Your task to perform on an android device: set an alarm Image 0: 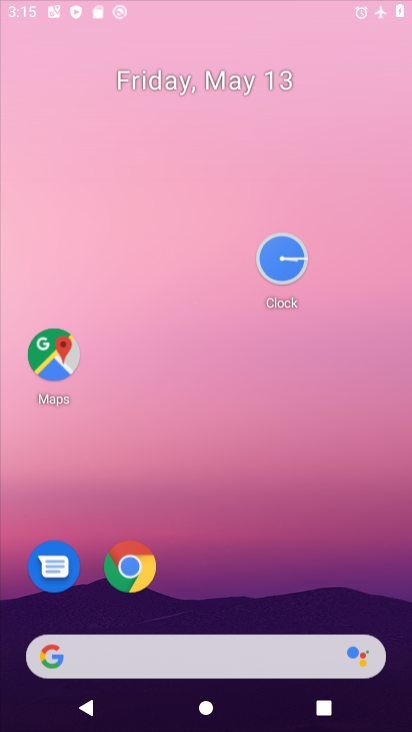
Step 0: click (280, 236)
Your task to perform on an android device: set an alarm Image 1: 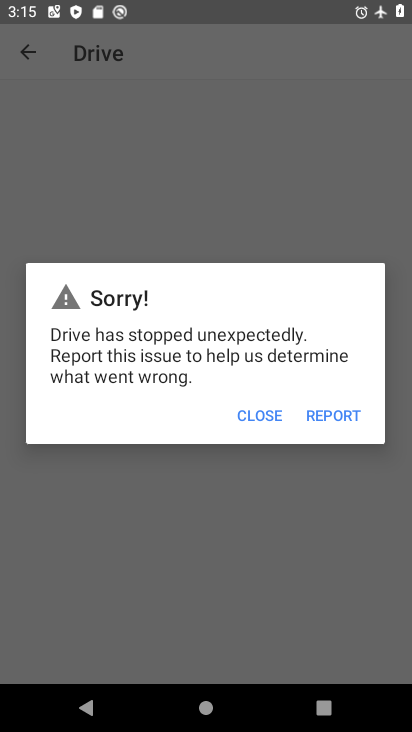
Step 1: press home button
Your task to perform on an android device: set an alarm Image 2: 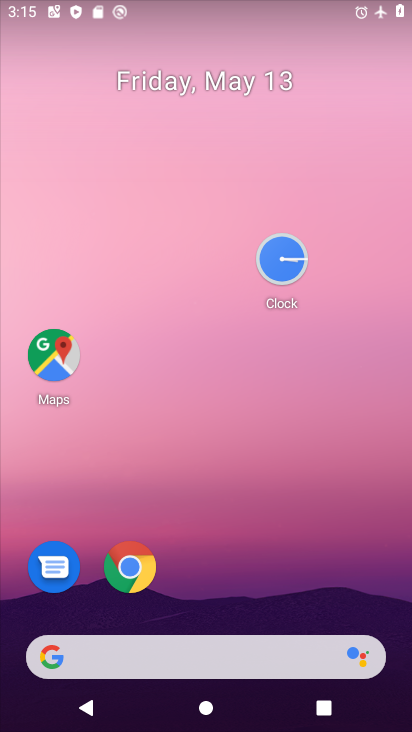
Step 2: drag from (279, 564) to (333, 158)
Your task to perform on an android device: set an alarm Image 3: 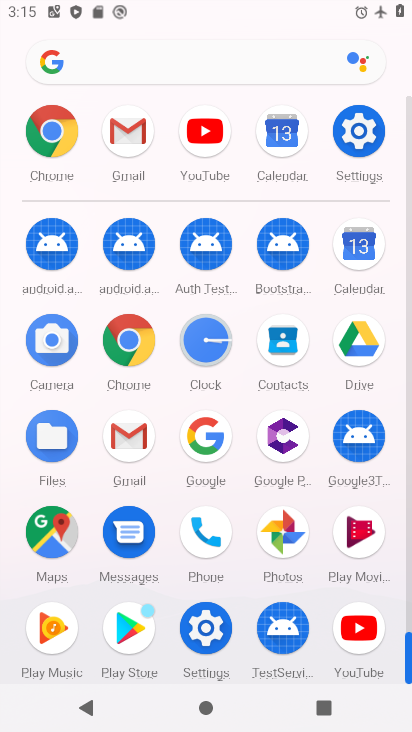
Step 3: click (196, 344)
Your task to perform on an android device: set an alarm Image 4: 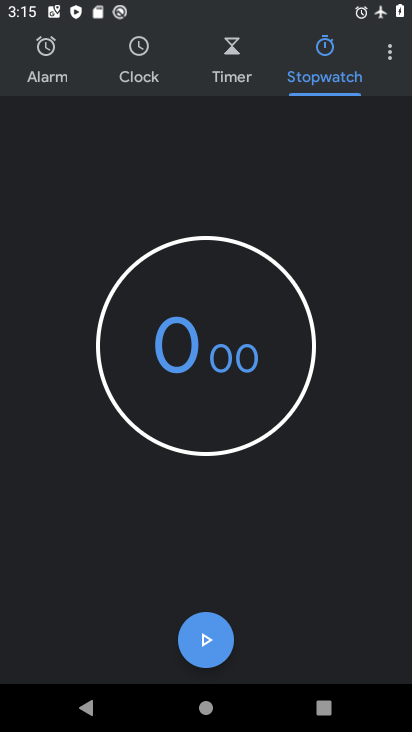
Step 4: click (54, 75)
Your task to perform on an android device: set an alarm Image 5: 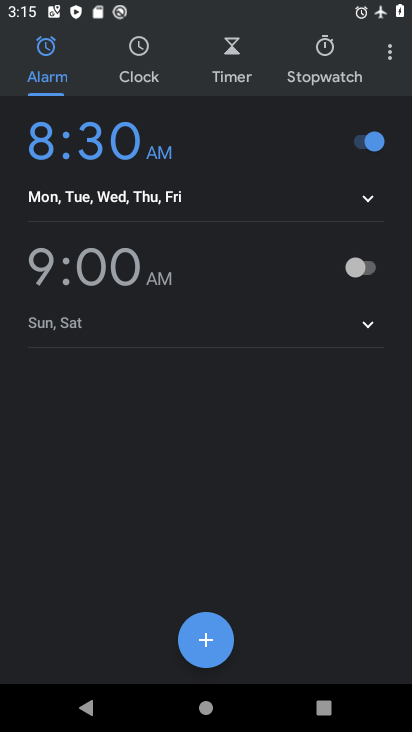
Step 5: click (364, 146)
Your task to perform on an android device: set an alarm Image 6: 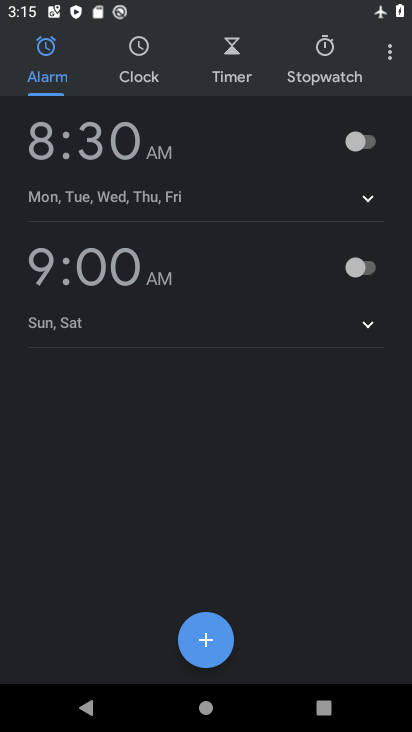
Step 6: task complete